Your task to perform on an android device: star an email in the gmail app Image 0: 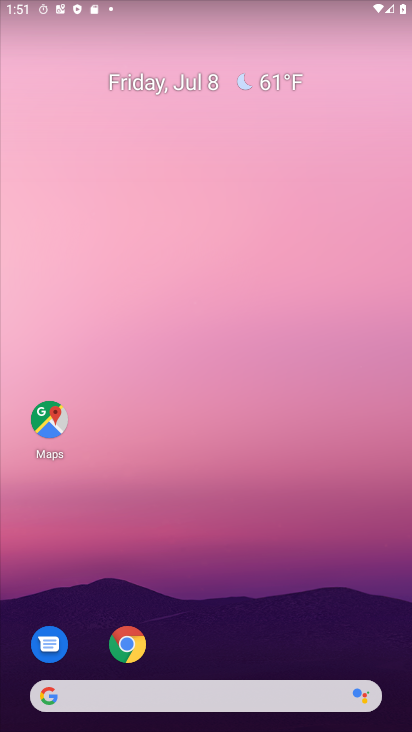
Step 0: drag from (130, 7) to (28, 7)
Your task to perform on an android device: star an email in the gmail app Image 1: 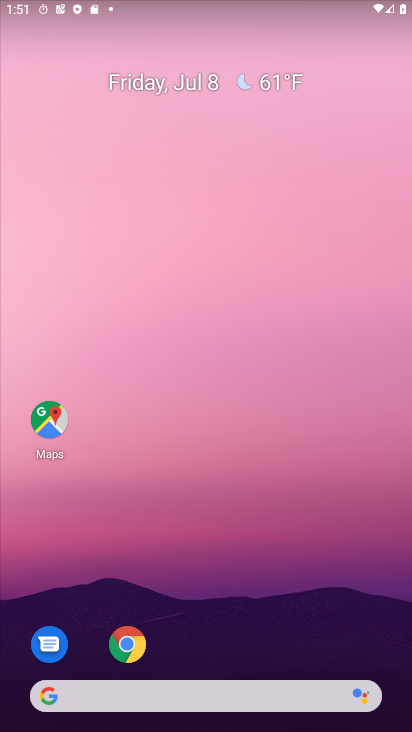
Step 1: click (229, 68)
Your task to perform on an android device: star an email in the gmail app Image 2: 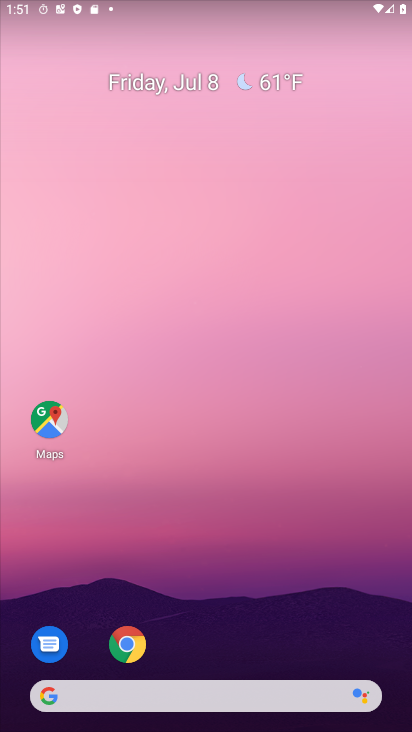
Step 2: drag from (184, 354) to (188, 4)
Your task to perform on an android device: star an email in the gmail app Image 3: 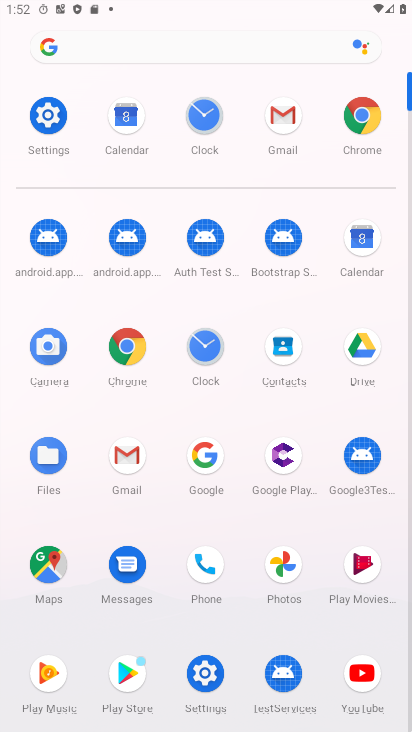
Step 3: click (279, 136)
Your task to perform on an android device: star an email in the gmail app Image 4: 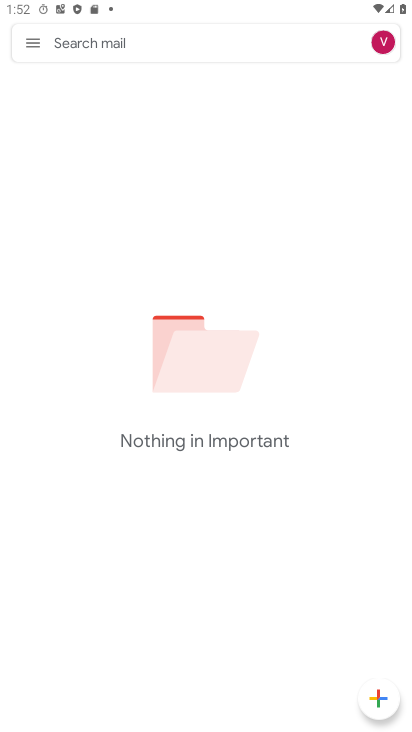
Step 4: task complete